Your task to perform on an android device: Show me the alarms in the clock app Image 0: 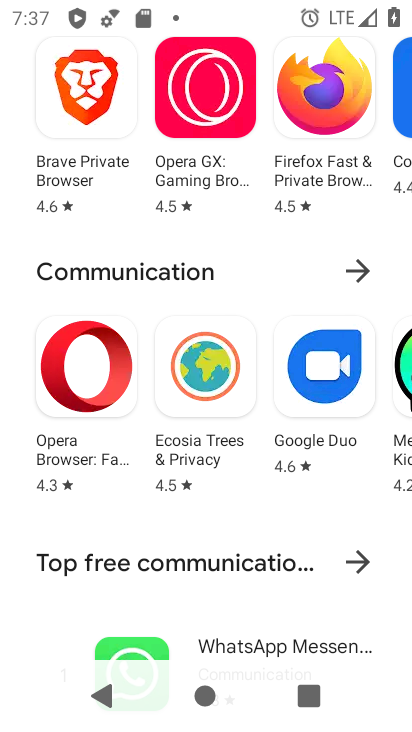
Step 0: press home button
Your task to perform on an android device: Show me the alarms in the clock app Image 1: 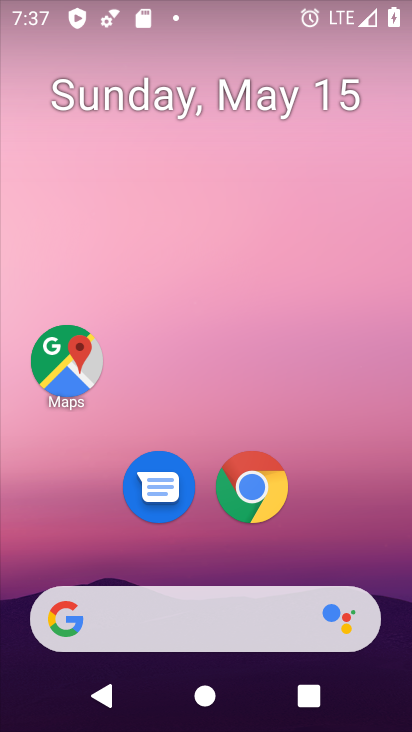
Step 1: drag from (349, 522) to (349, 81)
Your task to perform on an android device: Show me the alarms in the clock app Image 2: 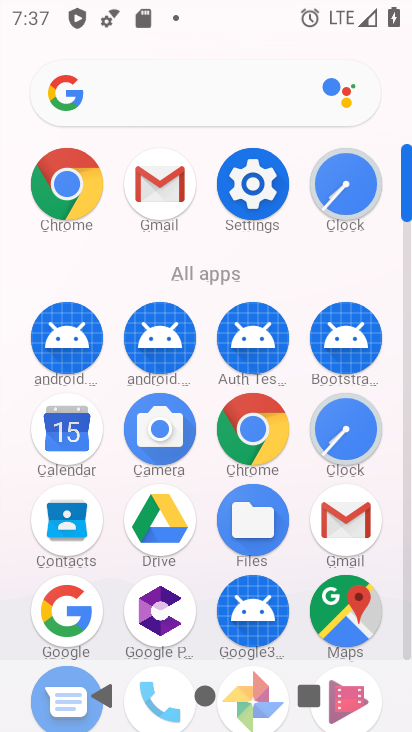
Step 2: click (342, 438)
Your task to perform on an android device: Show me the alarms in the clock app Image 3: 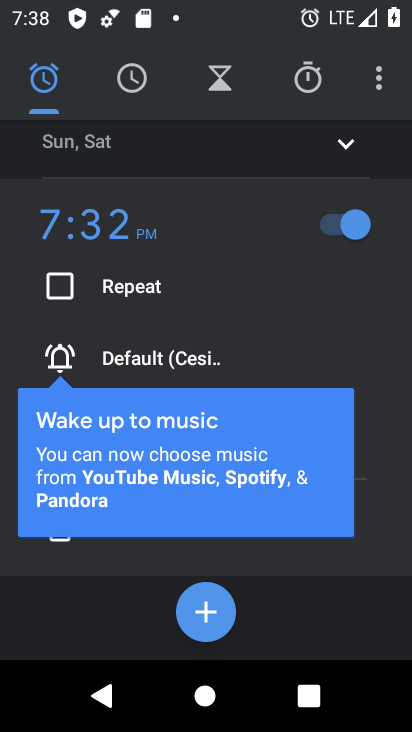
Step 3: task complete